Your task to perform on an android device: Open Google Maps Image 0: 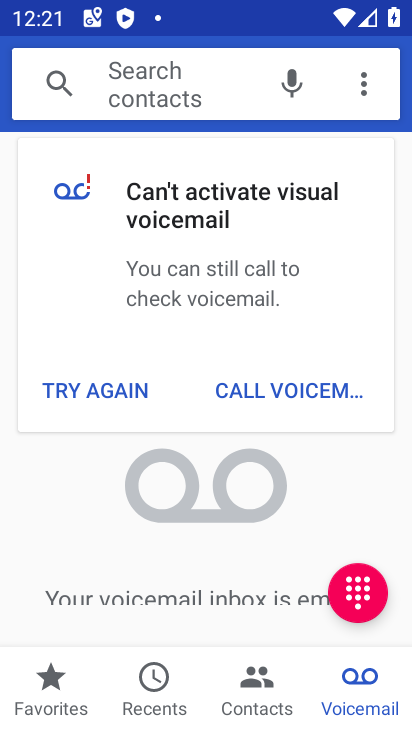
Step 0: press home button
Your task to perform on an android device: Open Google Maps Image 1: 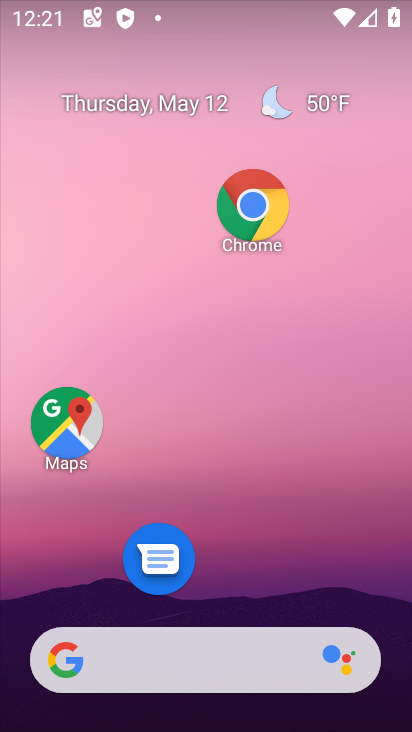
Step 1: drag from (291, 566) to (286, 85)
Your task to perform on an android device: Open Google Maps Image 2: 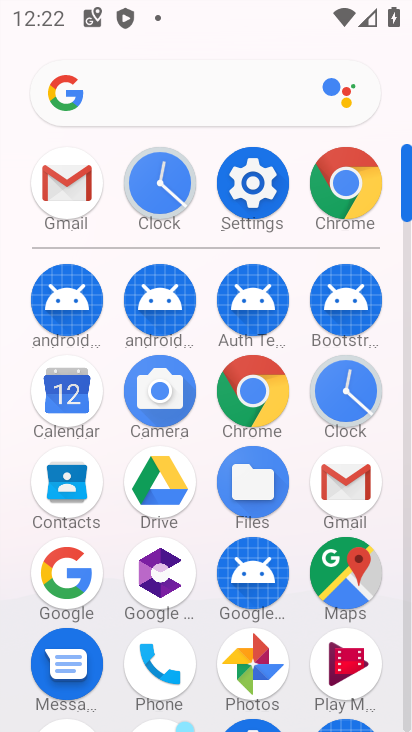
Step 2: click (367, 577)
Your task to perform on an android device: Open Google Maps Image 3: 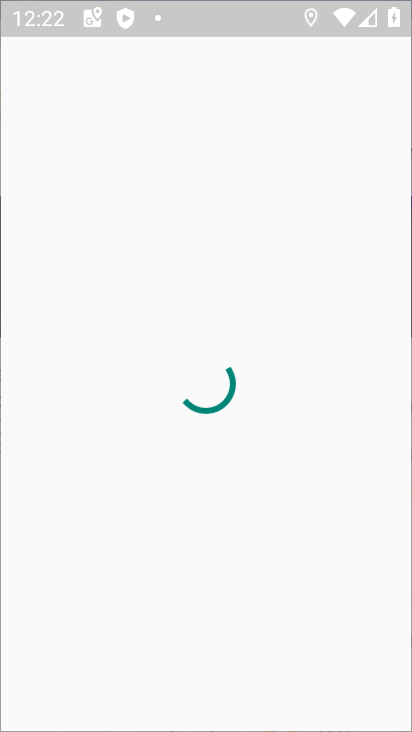
Step 3: task complete